Your task to perform on an android device: Open battery settings Image 0: 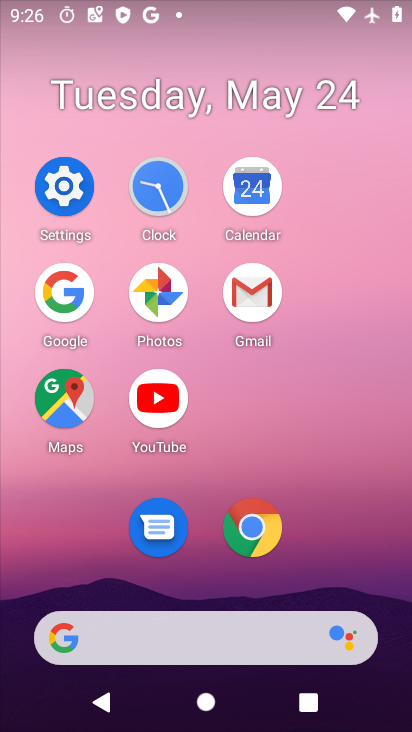
Step 0: click (88, 194)
Your task to perform on an android device: Open battery settings Image 1: 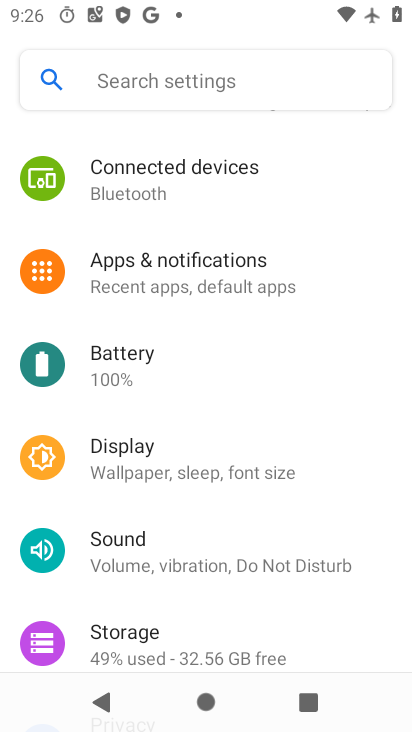
Step 1: click (172, 352)
Your task to perform on an android device: Open battery settings Image 2: 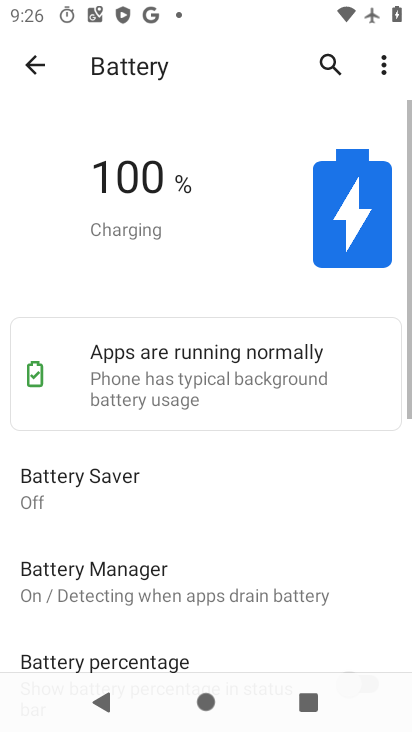
Step 2: task complete